Your task to perform on an android device: read, delete, or share a saved page in the chrome app Image 0: 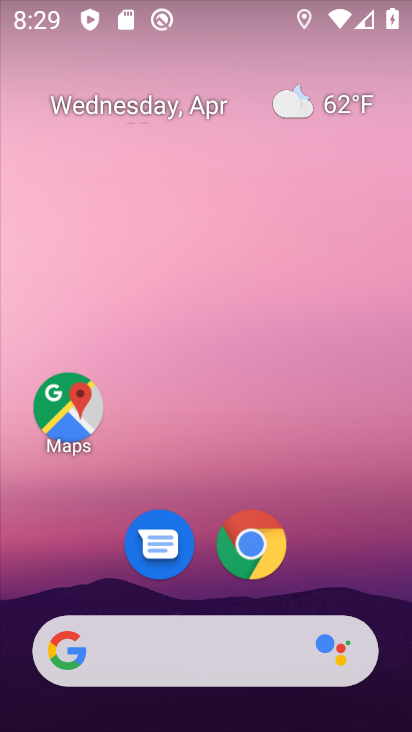
Step 0: click (257, 544)
Your task to perform on an android device: read, delete, or share a saved page in the chrome app Image 1: 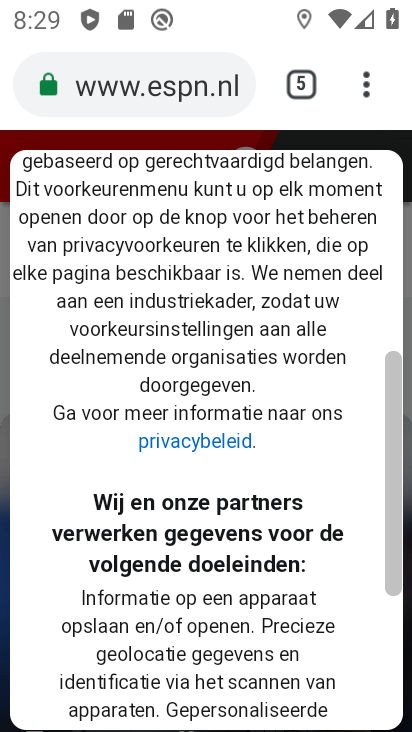
Step 1: drag from (367, 90) to (139, 418)
Your task to perform on an android device: read, delete, or share a saved page in the chrome app Image 2: 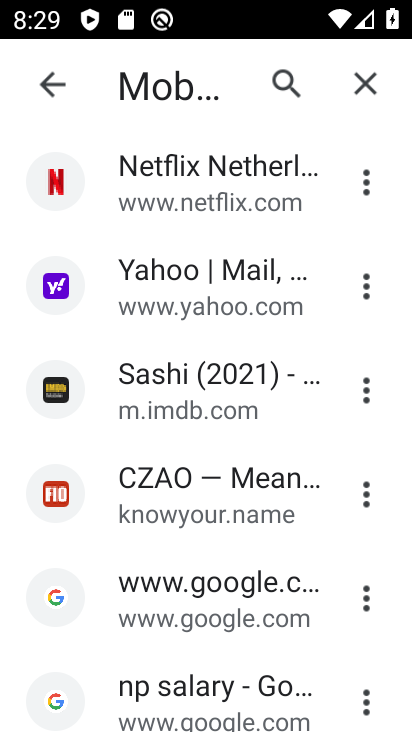
Step 2: click (366, 386)
Your task to perform on an android device: read, delete, or share a saved page in the chrome app Image 3: 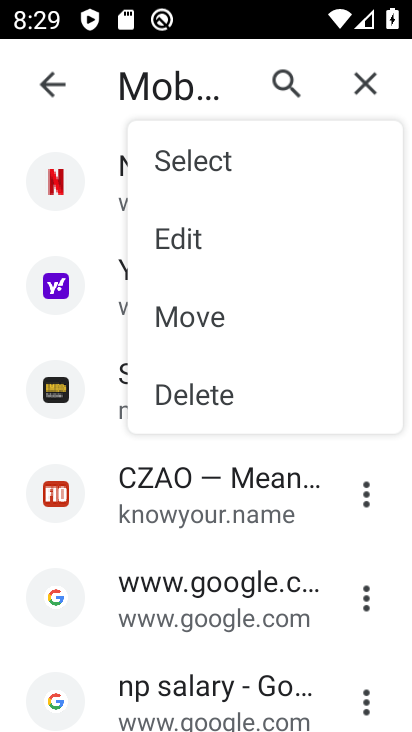
Step 3: click (237, 400)
Your task to perform on an android device: read, delete, or share a saved page in the chrome app Image 4: 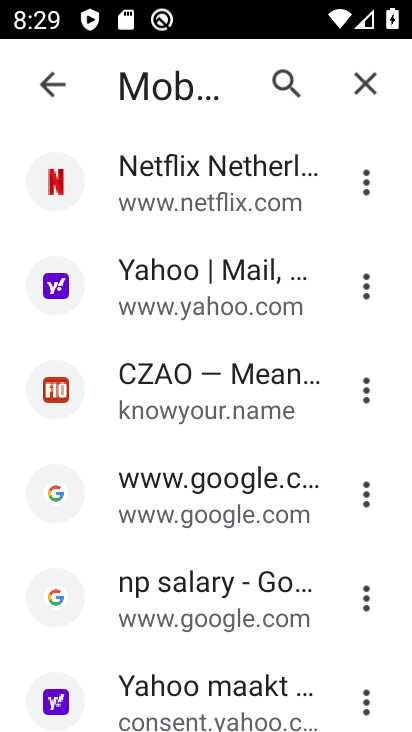
Step 4: task complete